Your task to perform on an android device: set the stopwatch Image 0: 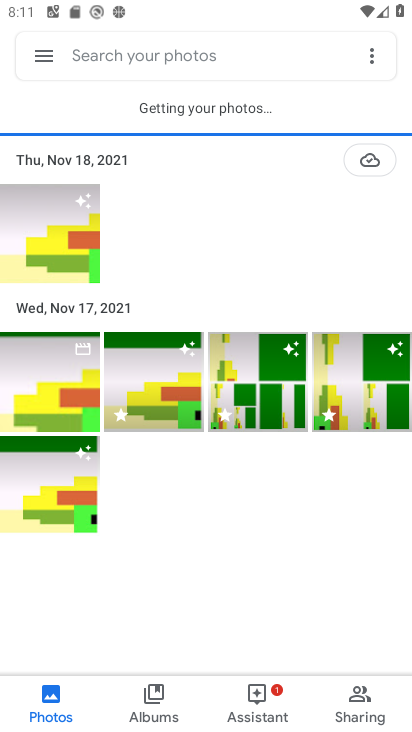
Step 0: drag from (190, 619) to (405, 513)
Your task to perform on an android device: set the stopwatch Image 1: 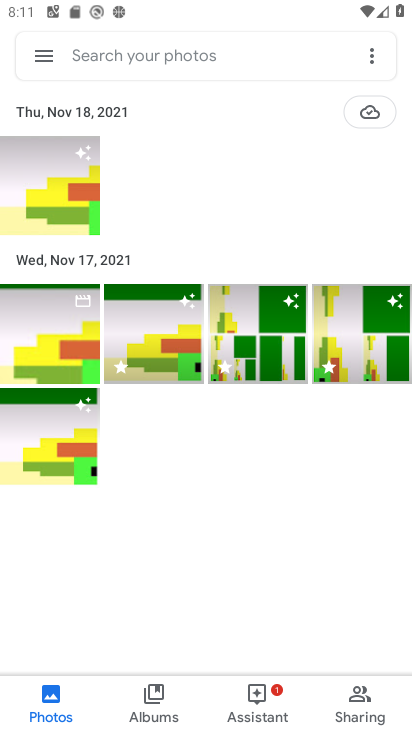
Step 1: press home button
Your task to perform on an android device: set the stopwatch Image 2: 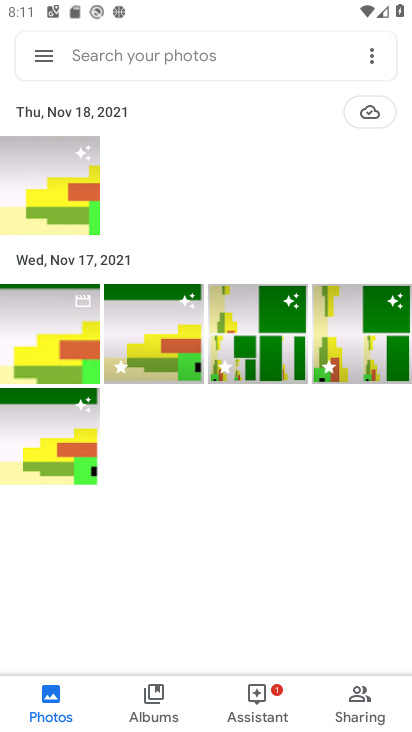
Step 2: drag from (405, 513) to (410, 339)
Your task to perform on an android device: set the stopwatch Image 3: 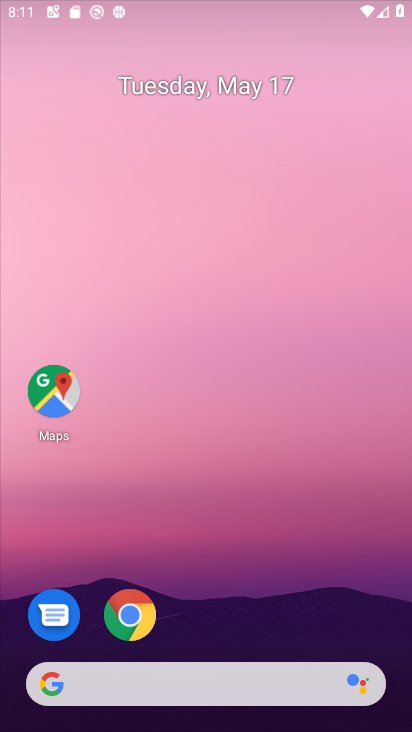
Step 3: drag from (249, 552) to (286, 164)
Your task to perform on an android device: set the stopwatch Image 4: 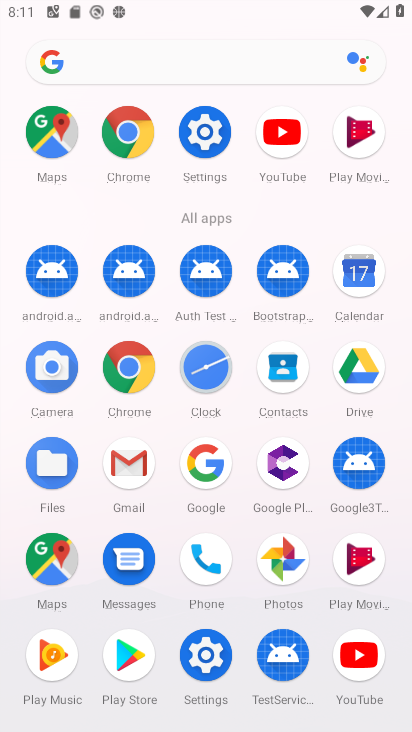
Step 4: click (217, 373)
Your task to perform on an android device: set the stopwatch Image 5: 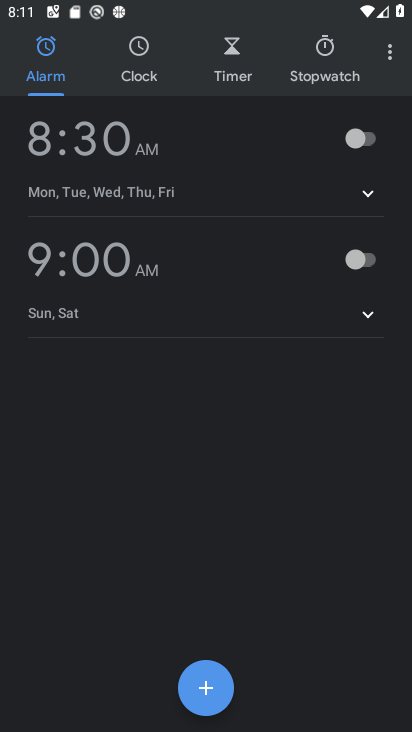
Step 5: click (321, 74)
Your task to perform on an android device: set the stopwatch Image 6: 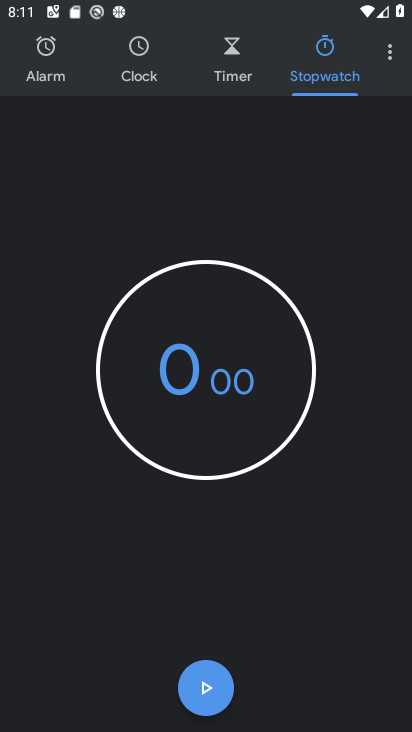
Step 6: click (207, 703)
Your task to perform on an android device: set the stopwatch Image 7: 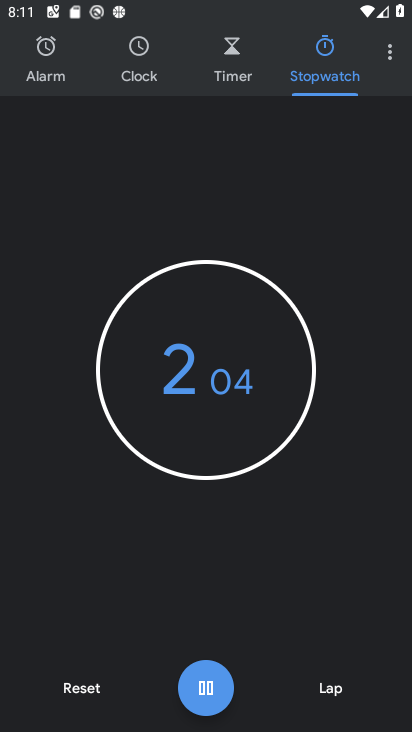
Step 7: task complete